Your task to perform on an android device: Open calendar and show me the fourth week of next month Image 0: 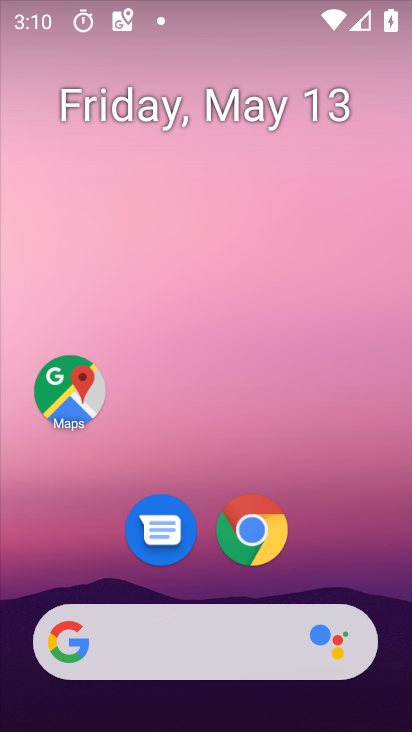
Step 0: drag from (317, 520) to (319, 98)
Your task to perform on an android device: Open calendar and show me the fourth week of next month Image 1: 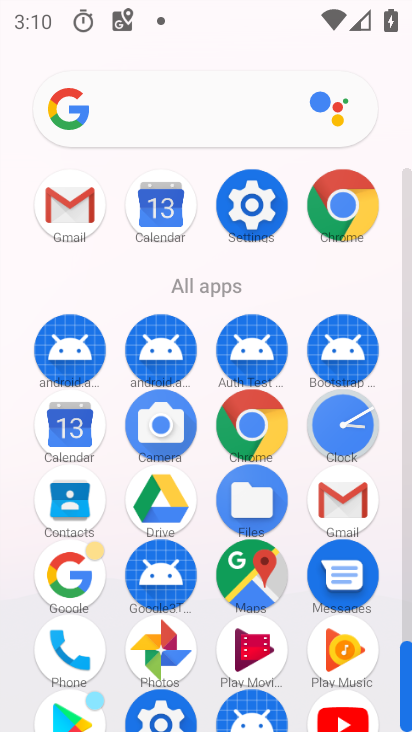
Step 1: click (76, 434)
Your task to perform on an android device: Open calendar and show me the fourth week of next month Image 2: 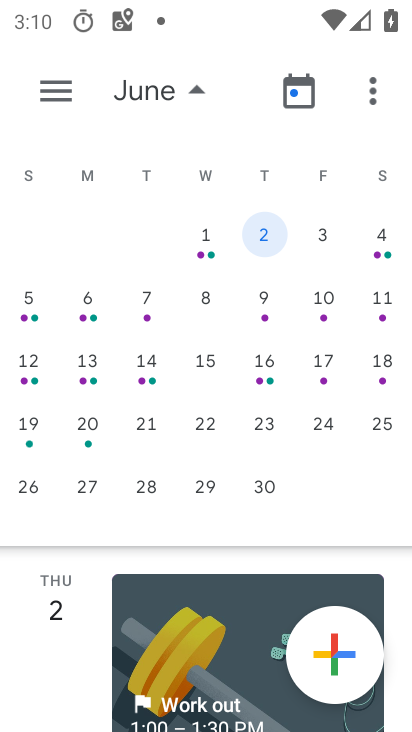
Step 2: click (33, 486)
Your task to perform on an android device: Open calendar and show me the fourth week of next month Image 3: 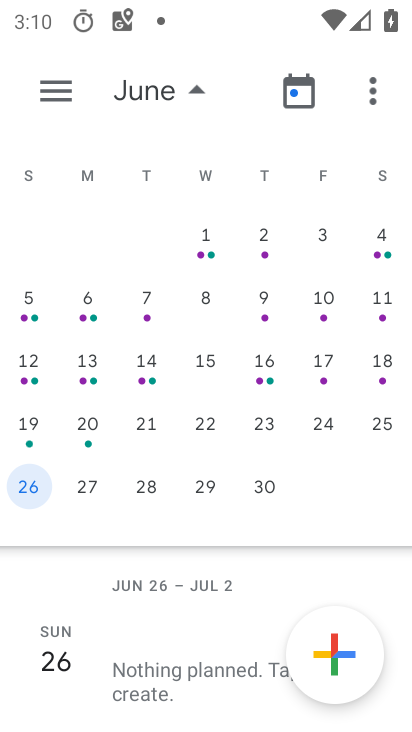
Step 3: task complete